Your task to perform on an android device: see sites visited before in the chrome app Image 0: 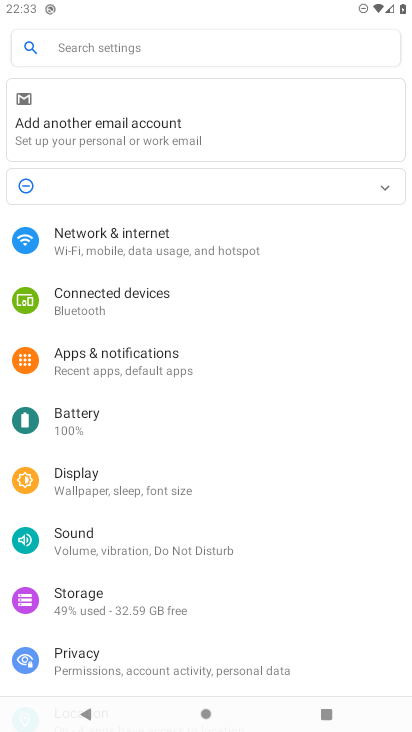
Step 0: press home button
Your task to perform on an android device: see sites visited before in the chrome app Image 1: 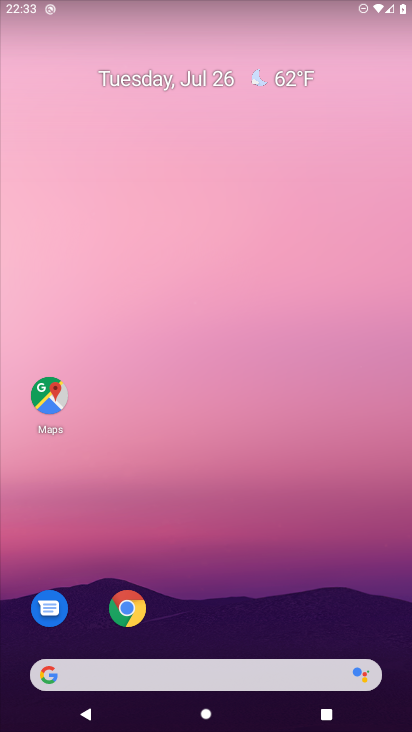
Step 1: click (140, 598)
Your task to perform on an android device: see sites visited before in the chrome app Image 2: 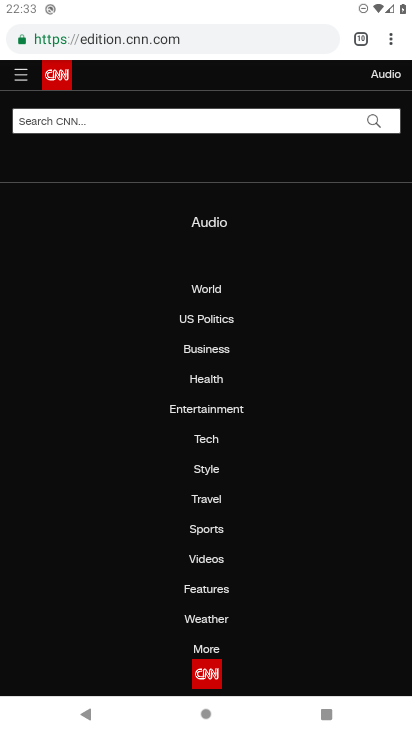
Step 2: click (385, 37)
Your task to perform on an android device: see sites visited before in the chrome app Image 3: 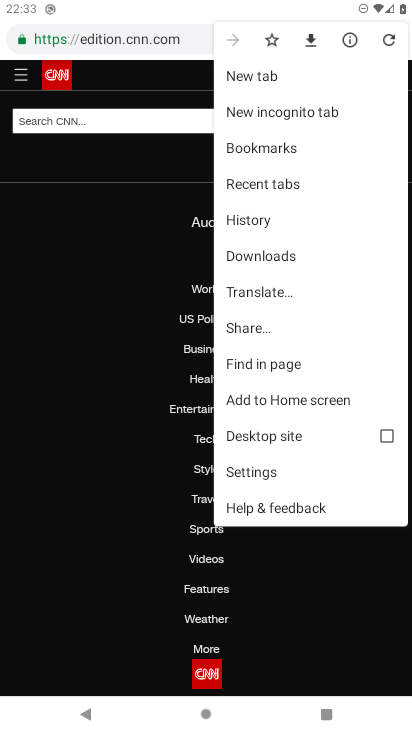
Step 3: click (279, 465)
Your task to perform on an android device: see sites visited before in the chrome app Image 4: 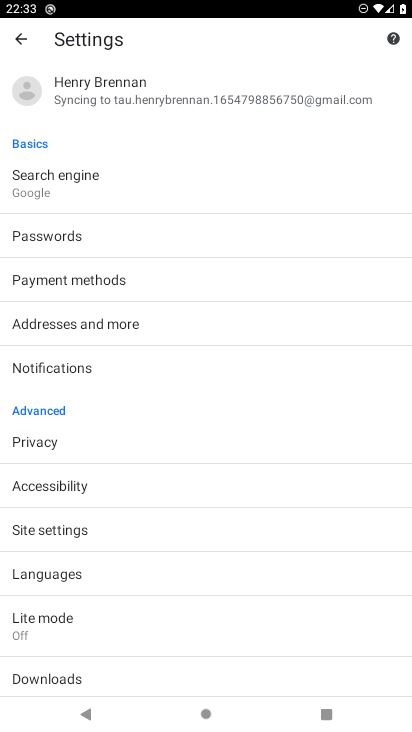
Step 4: click (36, 520)
Your task to perform on an android device: see sites visited before in the chrome app Image 5: 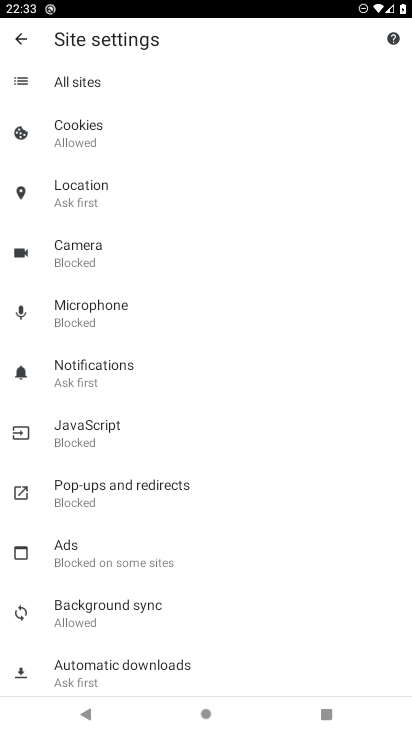
Step 5: task complete